Your task to perform on an android device: toggle wifi Image 0: 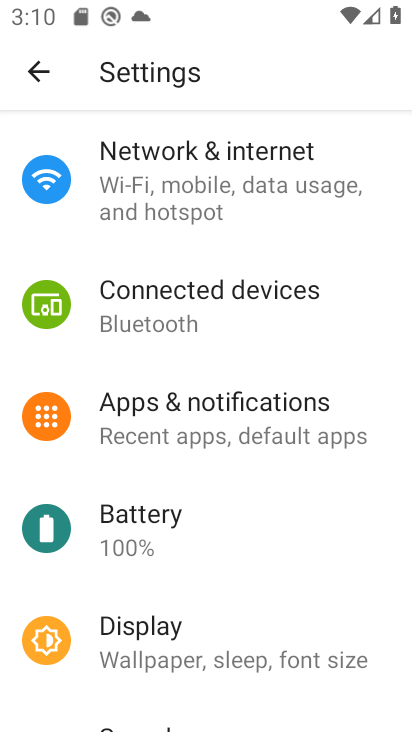
Step 0: click (235, 143)
Your task to perform on an android device: toggle wifi Image 1: 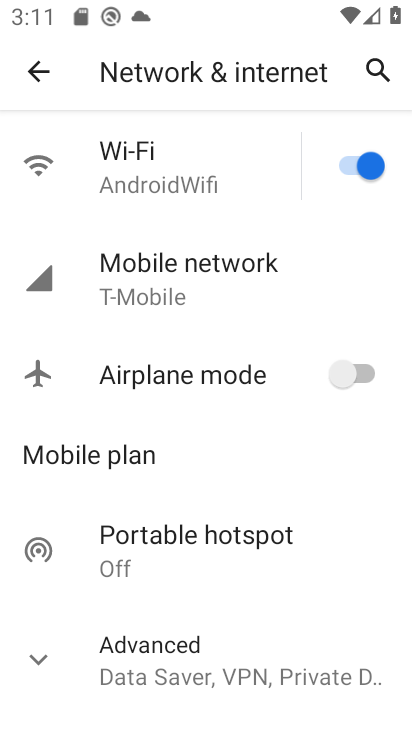
Step 1: click (170, 155)
Your task to perform on an android device: toggle wifi Image 2: 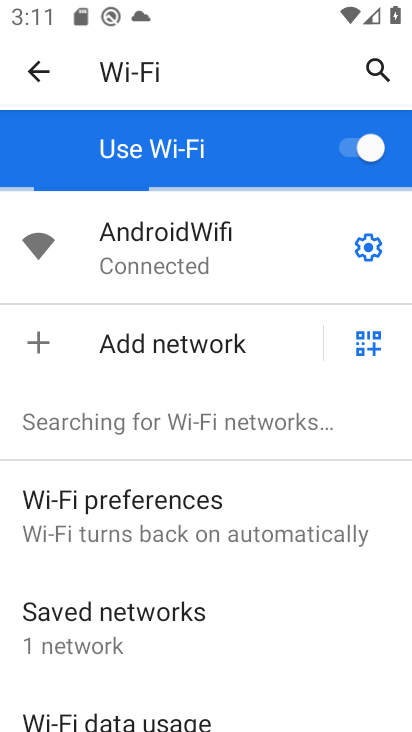
Step 2: click (378, 141)
Your task to perform on an android device: toggle wifi Image 3: 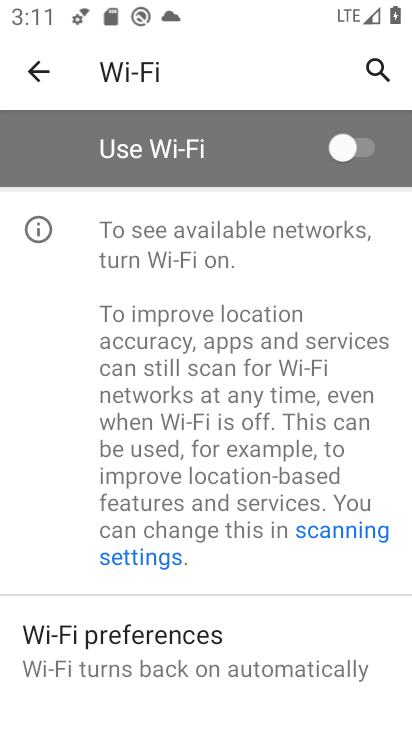
Step 3: task complete